Your task to perform on an android device: allow notifications from all sites in the chrome app Image 0: 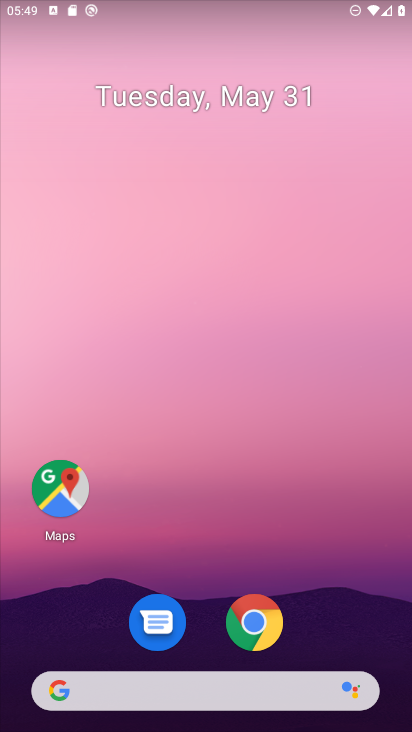
Step 0: drag from (266, 676) to (228, 52)
Your task to perform on an android device: allow notifications from all sites in the chrome app Image 1: 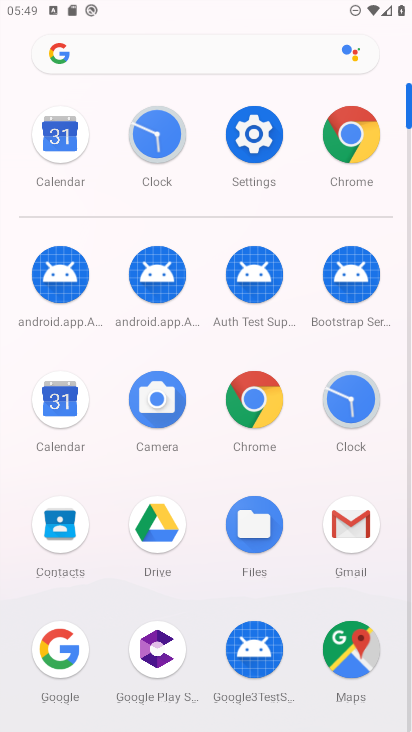
Step 1: click (263, 402)
Your task to perform on an android device: allow notifications from all sites in the chrome app Image 2: 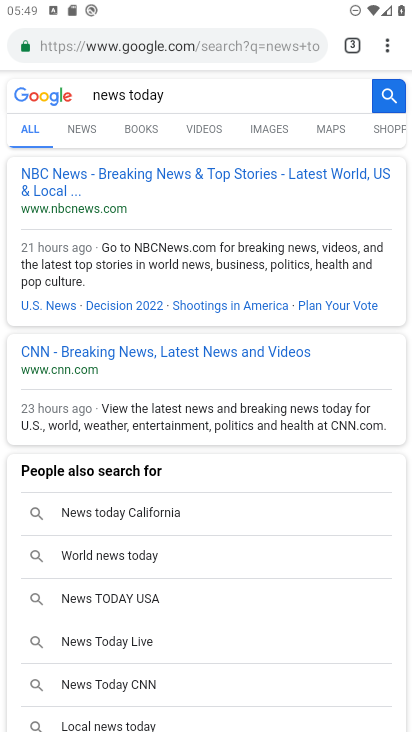
Step 2: drag from (391, 42) to (242, 507)
Your task to perform on an android device: allow notifications from all sites in the chrome app Image 3: 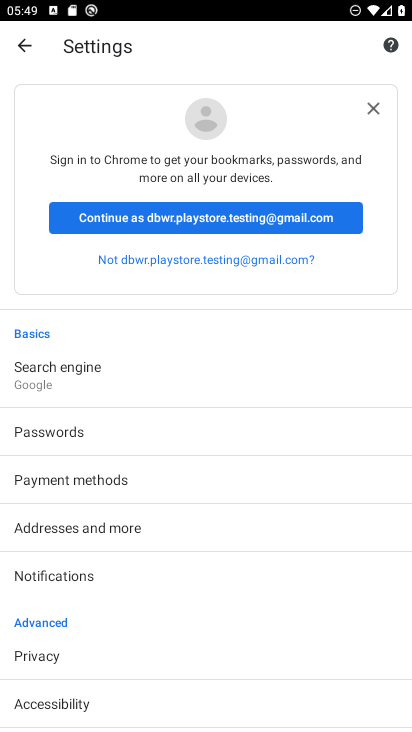
Step 3: drag from (126, 702) to (153, 200)
Your task to perform on an android device: allow notifications from all sites in the chrome app Image 4: 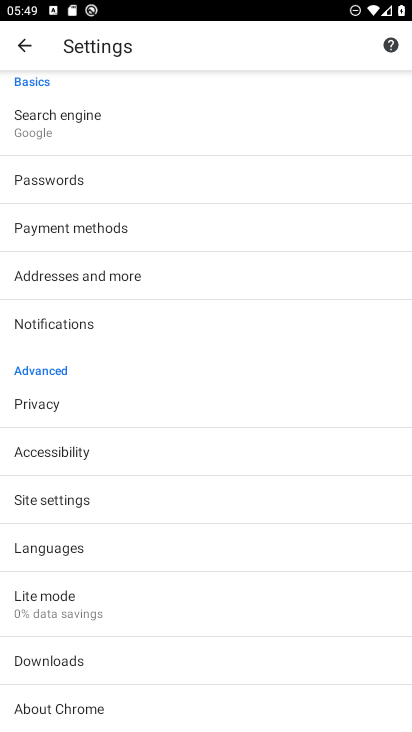
Step 4: click (130, 493)
Your task to perform on an android device: allow notifications from all sites in the chrome app Image 5: 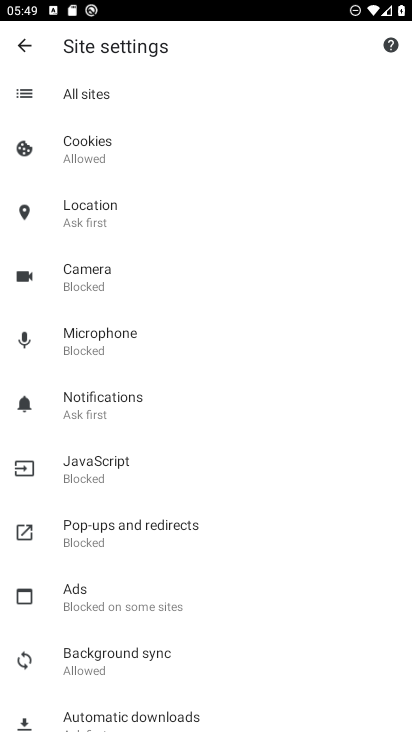
Step 5: click (148, 479)
Your task to perform on an android device: allow notifications from all sites in the chrome app Image 6: 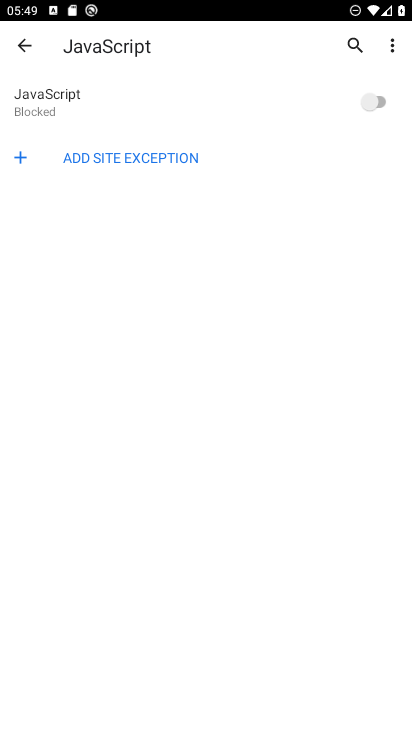
Step 6: press back button
Your task to perform on an android device: allow notifications from all sites in the chrome app Image 7: 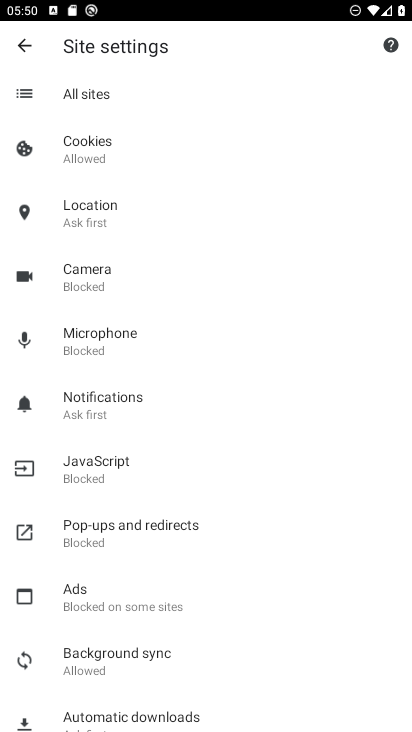
Step 7: click (133, 394)
Your task to perform on an android device: allow notifications from all sites in the chrome app Image 8: 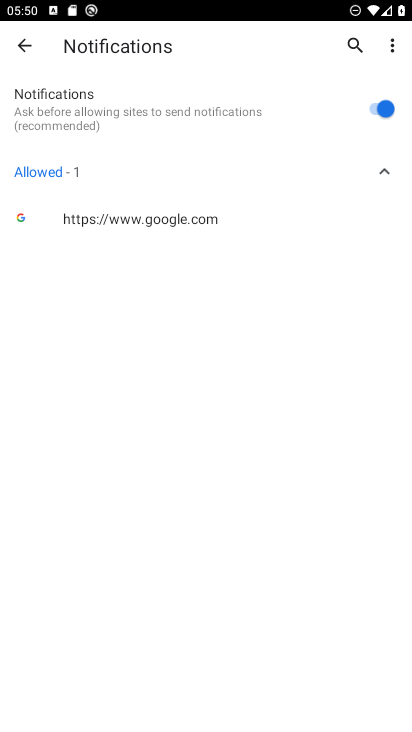
Step 8: task complete